Your task to perform on an android device: clear history in the chrome app Image 0: 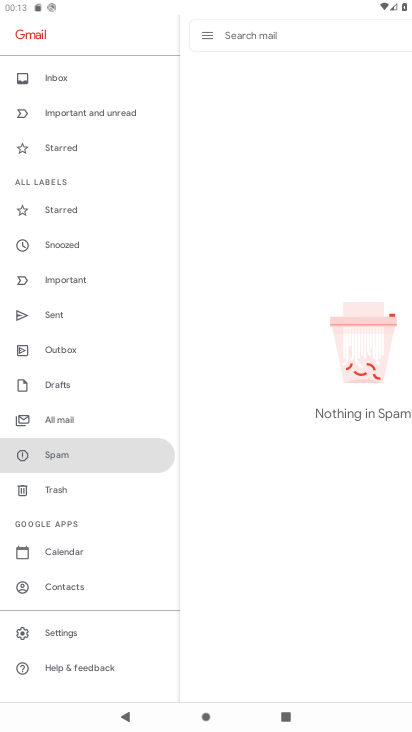
Step 0: press home button
Your task to perform on an android device: clear history in the chrome app Image 1: 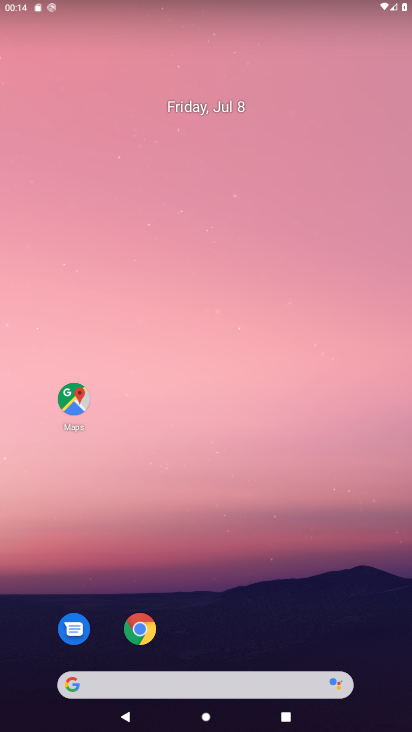
Step 1: click (145, 631)
Your task to perform on an android device: clear history in the chrome app Image 2: 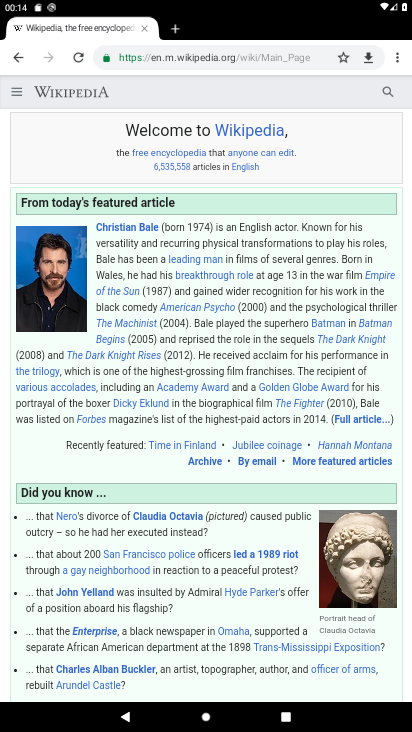
Step 2: click (394, 54)
Your task to perform on an android device: clear history in the chrome app Image 3: 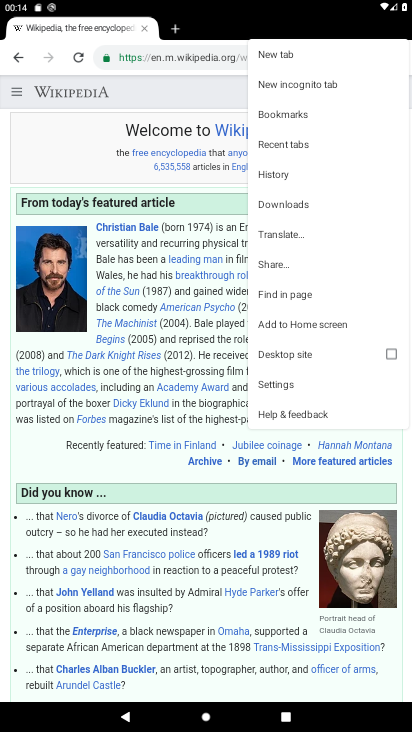
Step 3: click (292, 176)
Your task to perform on an android device: clear history in the chrome app Image 4: 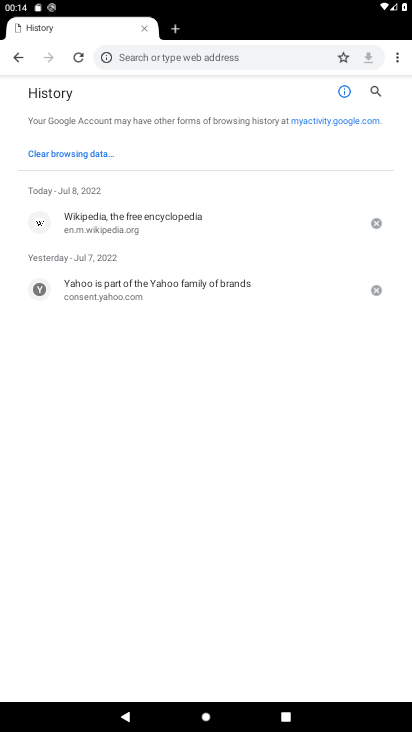
Step 4: click (55, 160)
Your task to perform on an android device: clear history in the chrome app Image 5: 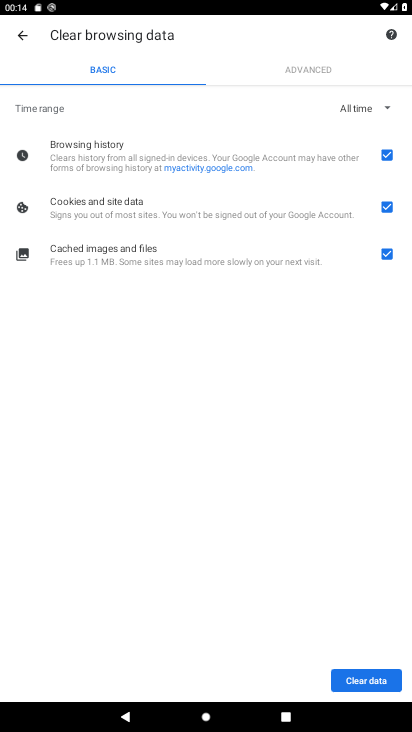
Step 5: click (367, 684)
Your task to perform on an android device: clear history in the chrome app Image 6: 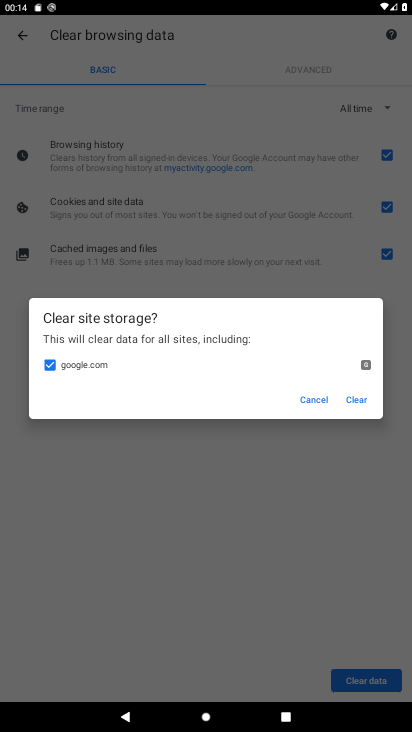
Step 6: click (355, 397)
Your task to perform on an android device: clear history in the chrome app Image 7: 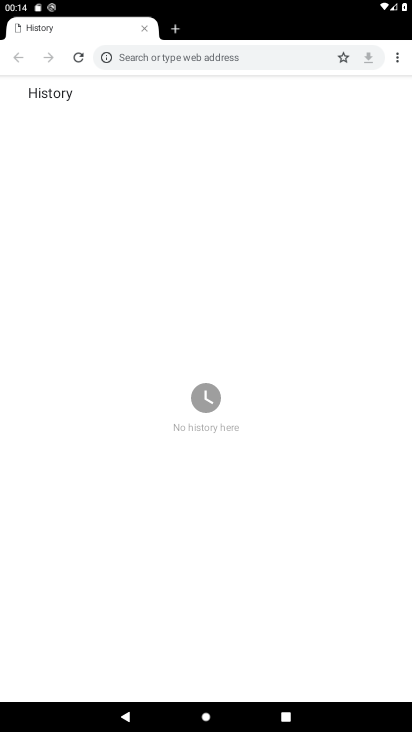
Step 7: task complete